Your task to perform on an android device: turn on location history Image 0: 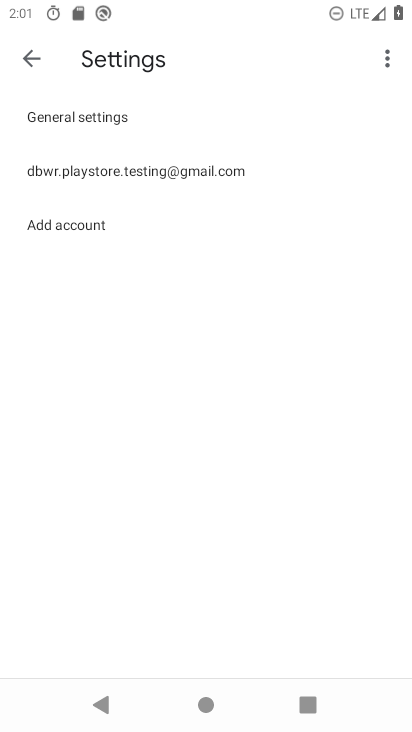
Step 0: press home button
Your task to perform on an android device: turn on location history Image 1: 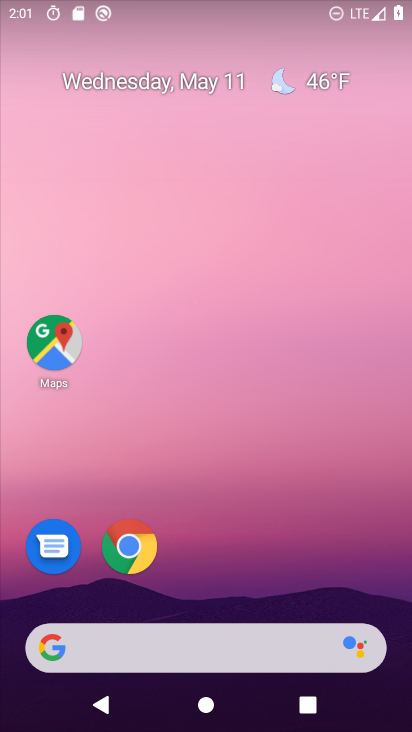
Step 1: drag from (311, 681) to (285, 199)
Your task to perform on an android device: turn on location history Image 2: 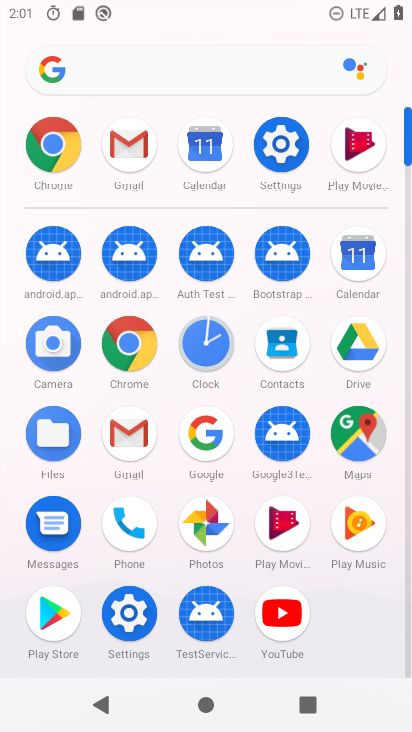
Step 2: click (274, 148)
Your task to perform on an android device: turn on location history Image 3: 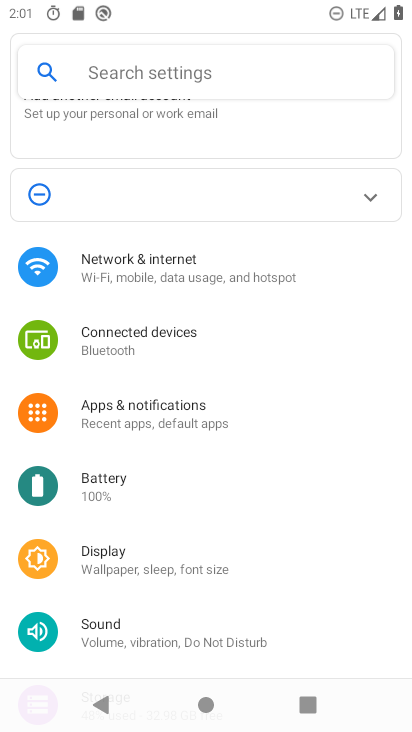
Step 3: click (157, 70)
Your task to perform on an android device: turn on location history Image 4: 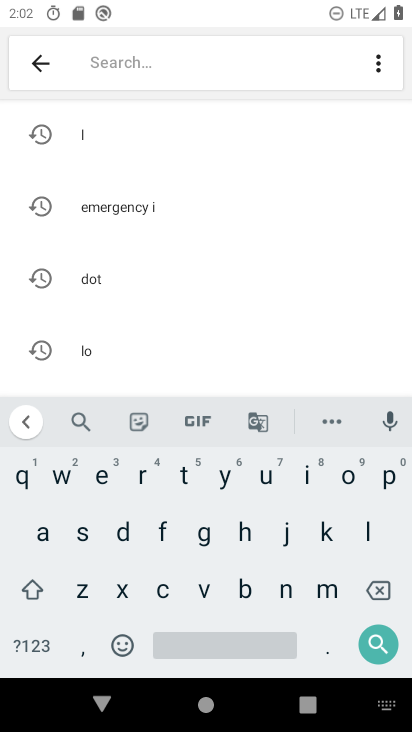
Step 4: click (144, 63)
Your task to perform on an android device: turn on location history Image 5: 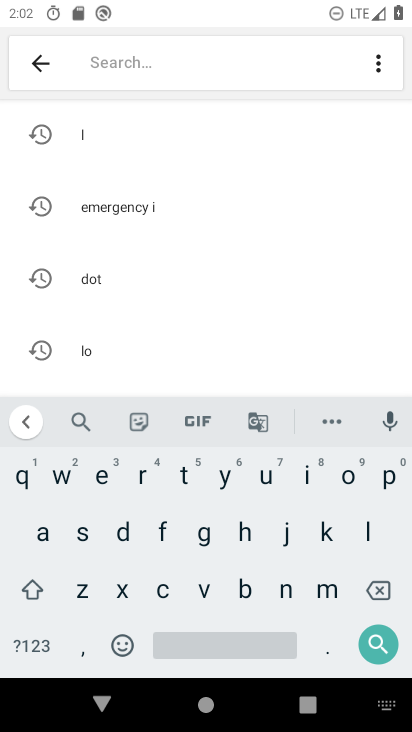
Step 5: click (120, 348)
Your task to perform on an android device: turn on location history Image 6: 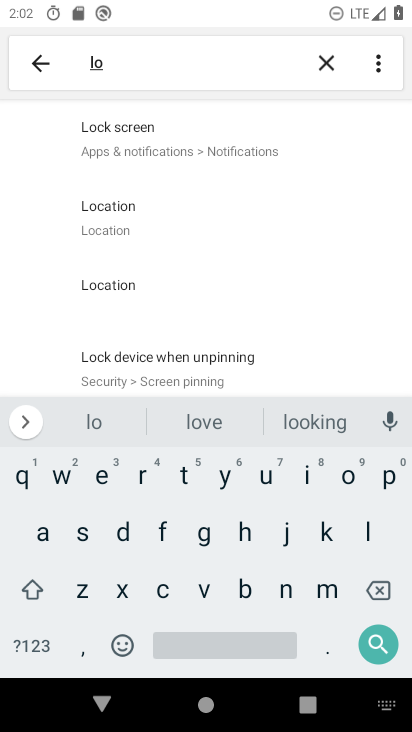
Step 6: click (137, 204)
Your task to perform on an android device: turn on location history Image 7: 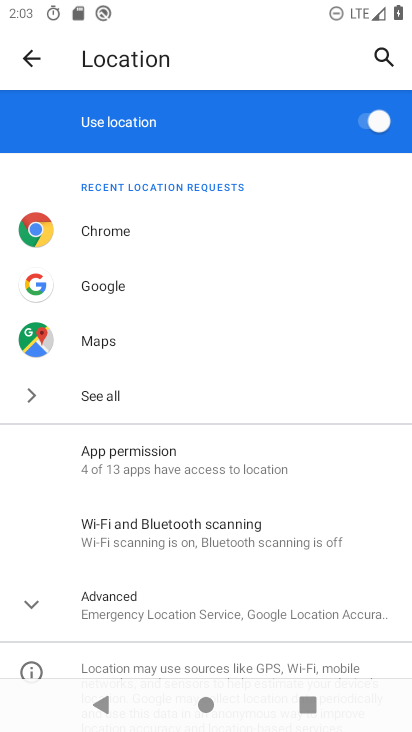
Step 7: click (68, 588)
Your task to perform on an android device: turn on location history Image 8: 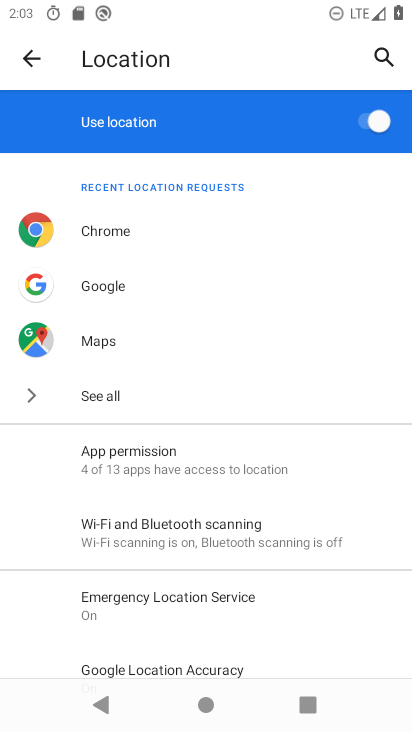
Step 8: drag from (198, 629) to (249, 389)
Your task to perform on an android device: turn on location history Image 9: 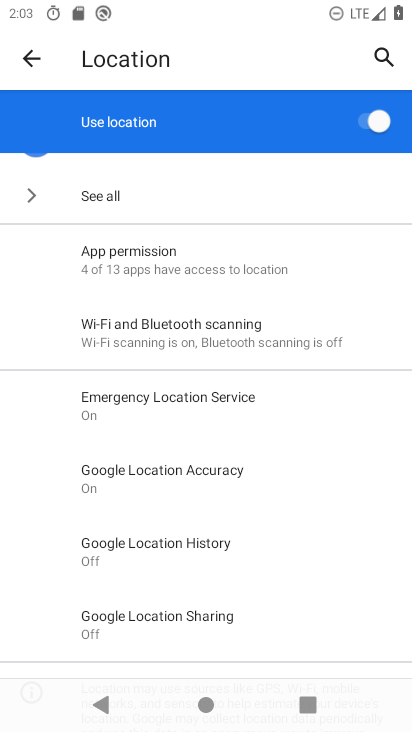
Step 9: click (214, 540)
Your task to perform on an android device: turn on location history Image 10: 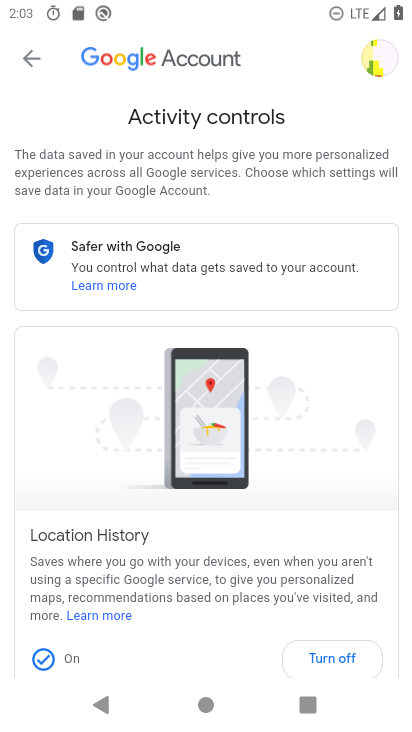
Step 10: task complete